Your task to perform on an android device: toggle airplane mode Image 0: 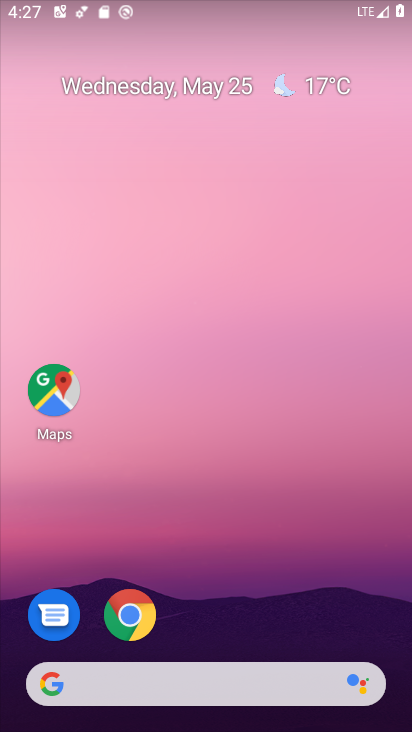
Step 0: drag from (261, 356) to (213, 86)
Your task to perform on an android device: toggle airplane mode Image 1: 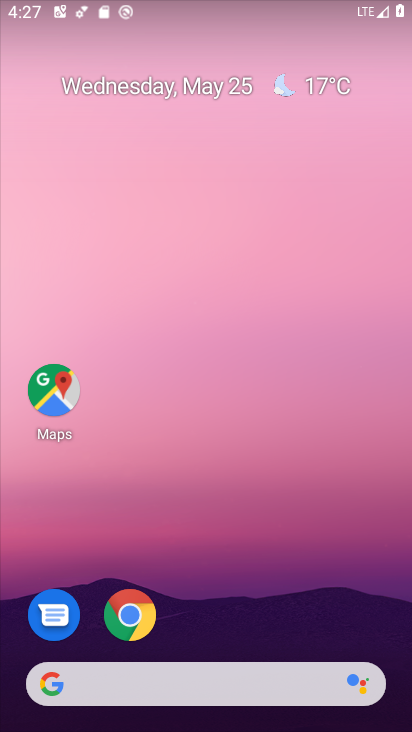
Step 1: drag from (290, 426) to (209, 8)
Your task to perform on an android device: toggle airplane mode Image 2: 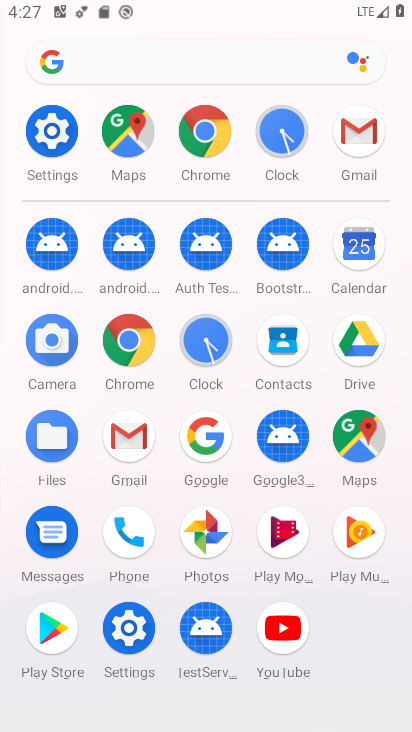
Step 2: click (45, 137)
Your task to perform on an android device: toggle airplane mode Image 3: 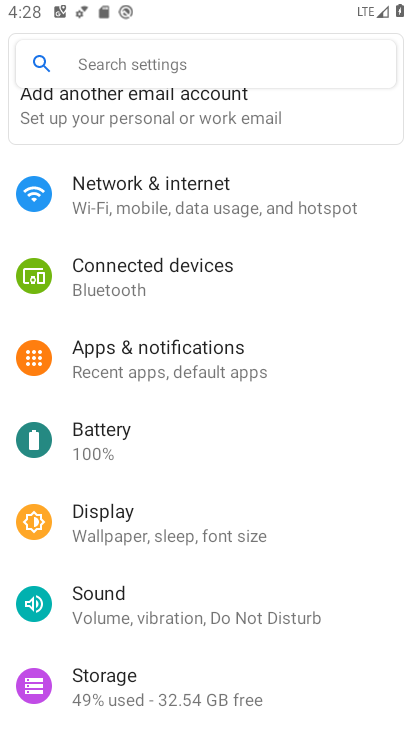
Step 3: click (204, 193)
Your task to perform on an android device: toggle airplane mode Image 4: 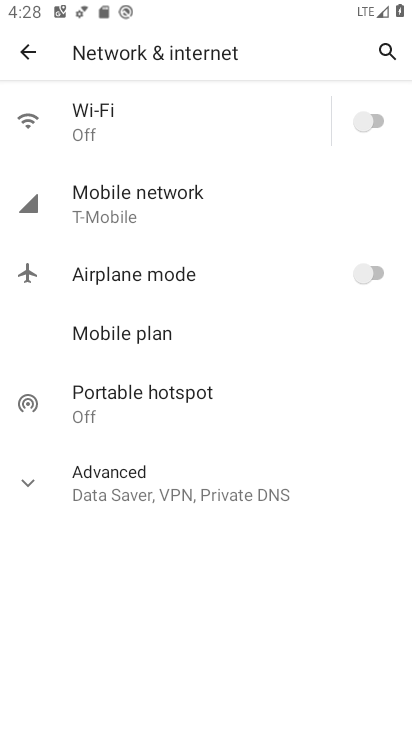
Step 4: click (364, 272)
Your task to perform on an android device: toggle airplane mode Image 5: 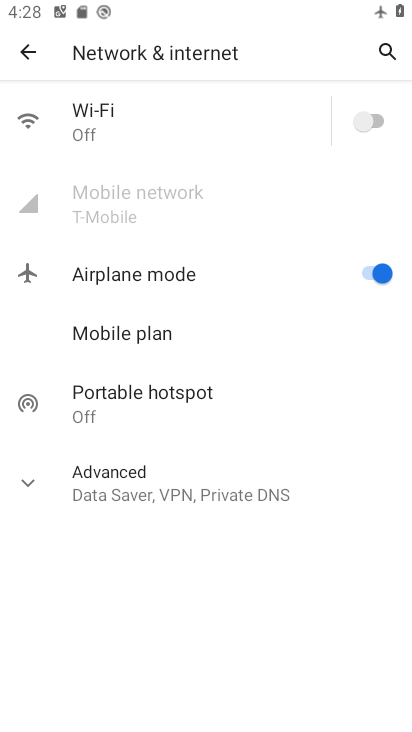
Step 5: task complete